Your task to perform on an android device: Open battery settings Image 0: 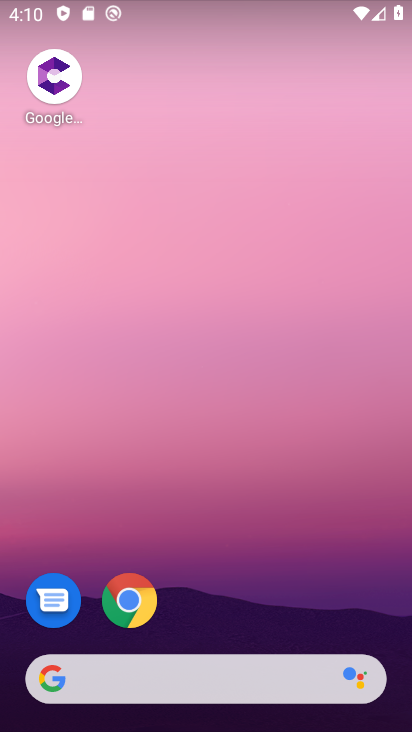
Step 0: drag from (264, 602) to (141, 156)
Your task to perform on an android device: Open battery settings Image 1: 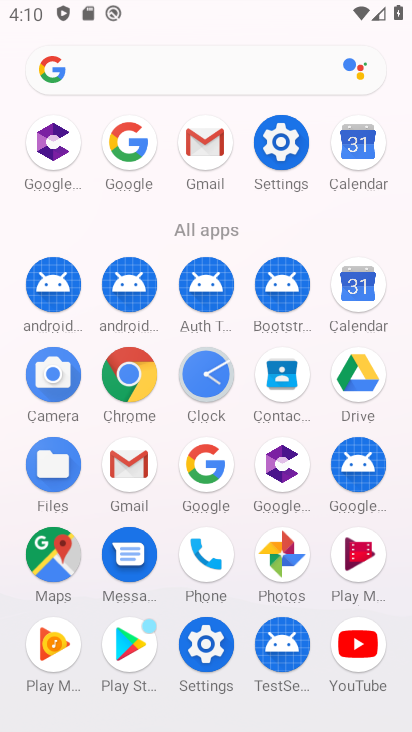
Step 1: click (281, 139)
Your task to perform on an android device: Open battery settings Image 2: 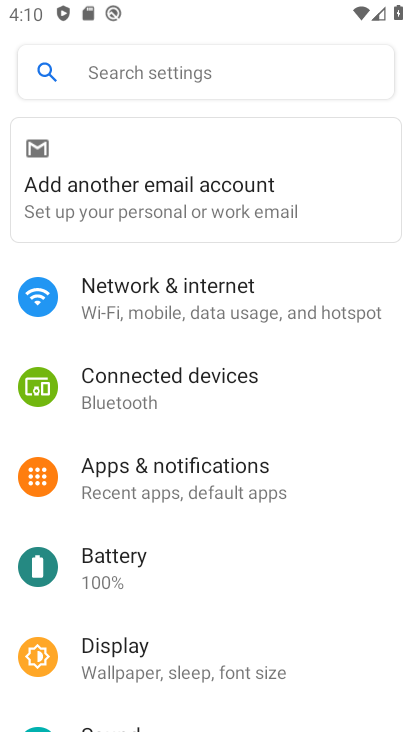
Step 2: click (139, 564)
Your task to perform on an android device: Open battery settings Image 3: 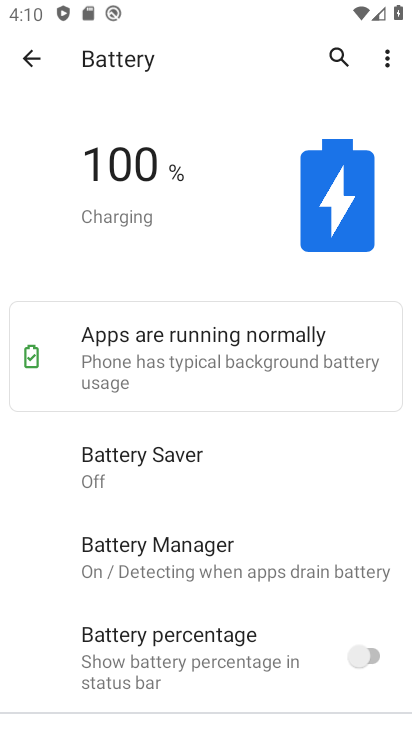
Step 3: task complete